Your task to perform on an android device: Is it going to rain today? Image 0: 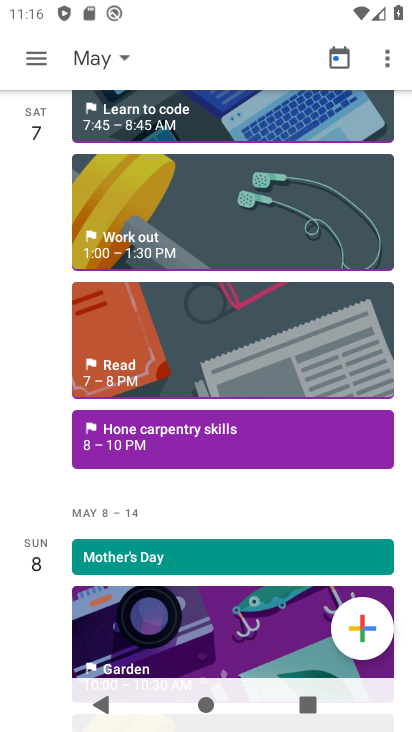
Step 0: press home button
Your task to perform on an android device: Is it going to rain today? Image 1: 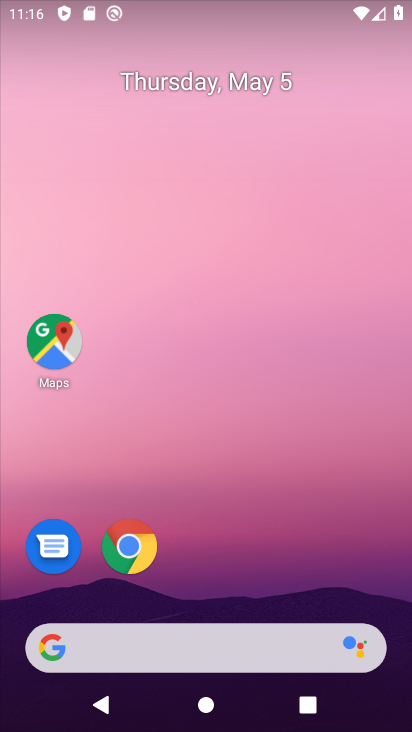
Step 1: click (209, 630)
Your task to perform on an android device: Is it going to rain today? Image 2: 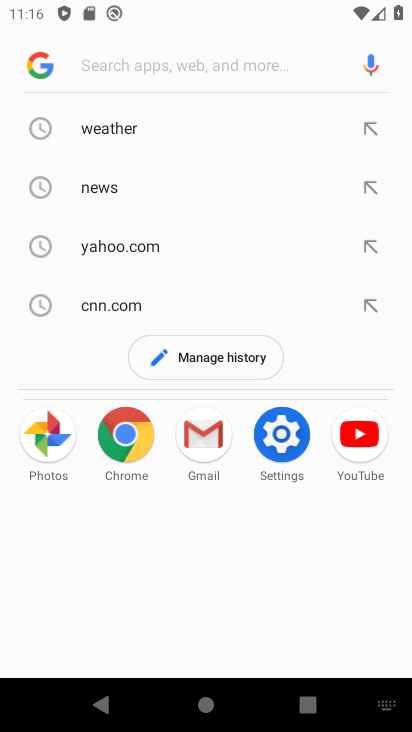
Step 2: click (134, 144)
Your task to perform on an android device: Is it going to rain today? Image 3: 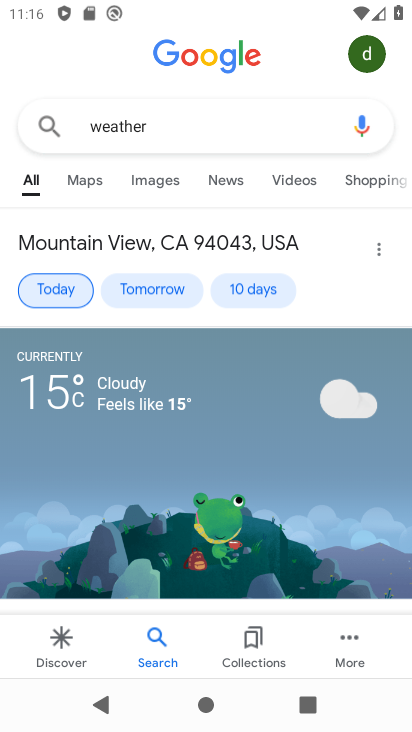
Step 3: click (62, 274)
Your task to perform on an android device: Is it going to rain today? Image 4: 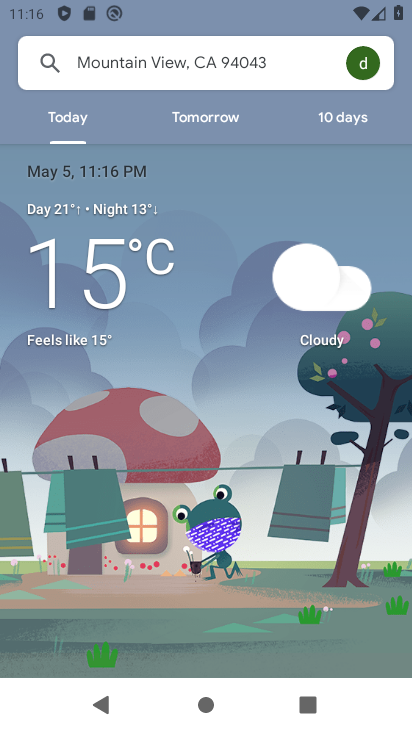
Step 4: task complete